Your task to perform on an android device: change notification settings in the gmail app Image 0: 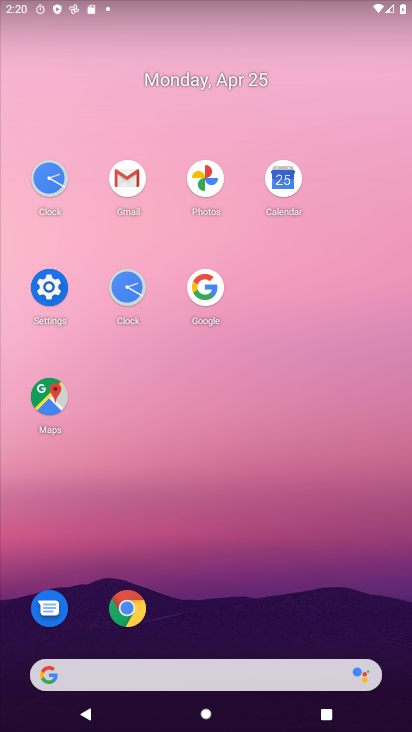
Step 0: drag from (254, 605) to (291, 38)
Your task to perform on an android device: change notification settings in the gmail app Image 1: 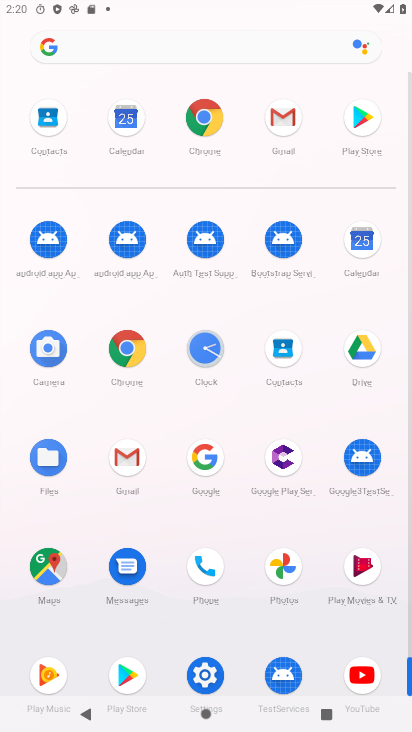
Step 1: click (129, 456)
Your task to perform on an android device: change notification settings in the gmail app Image 2: 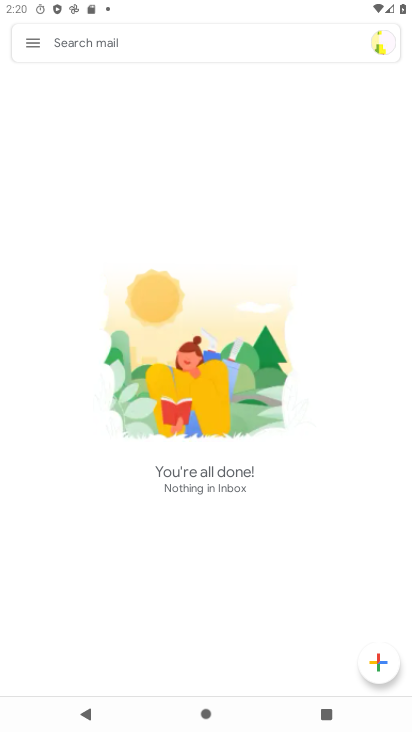
Step 2: click (36, 34)
Your task to perform on an android device: change notification settings in the gmail app Image 3: 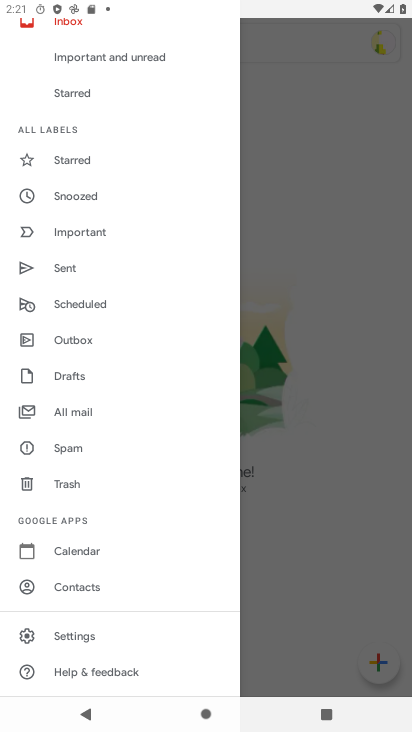
Step 3: click (93, 627)
Your task to perform on an android device: change notification settings in the gmail app Image 4: 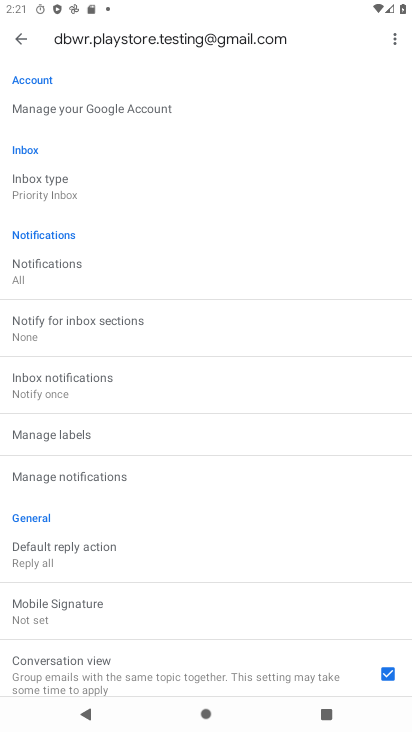
Step 4: click (109, 275)
Your task to perform on an android device: change notification settings in the gmail app Image 5: 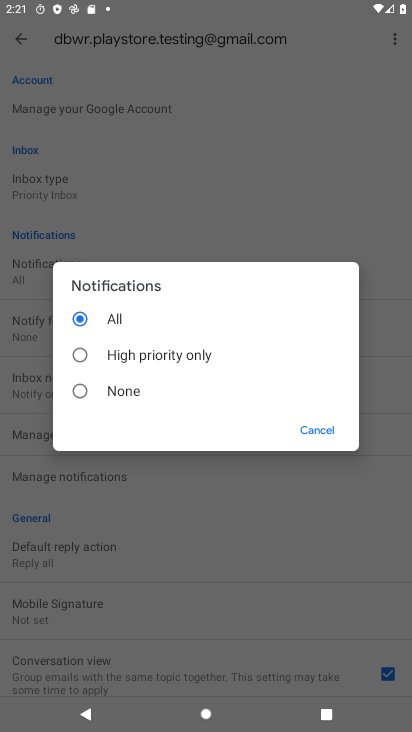
Step 5: click (151, 351)
Your task to perform on an android device: change notification settings in the gmail app Image 6: 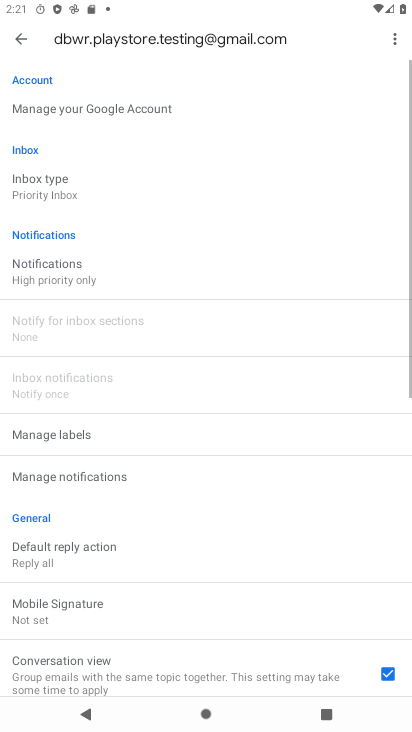
Step 6: task complete